Your task to perform on an android device: Open calendar and show me the first week of next month Image 0: 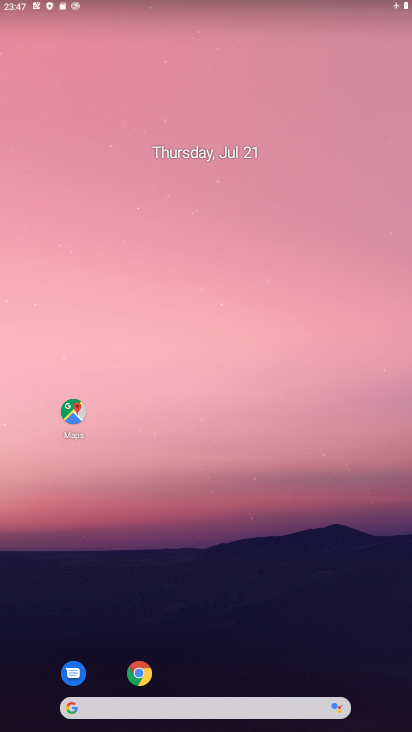
Step 0: drag from (218, 663) to (221, 225)
Your task to perform on an android device: Open calendar and show me the first week of next month Image 1: 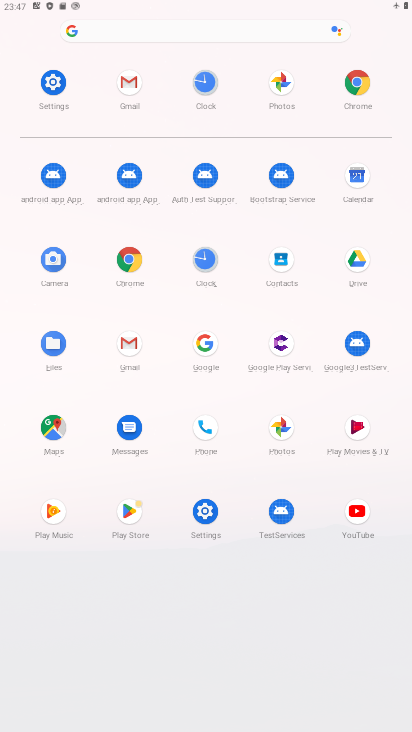
Step 1: click (366, 179)
Your task to perform on an android device: Open calendar and show me the first week of next month Image 2: 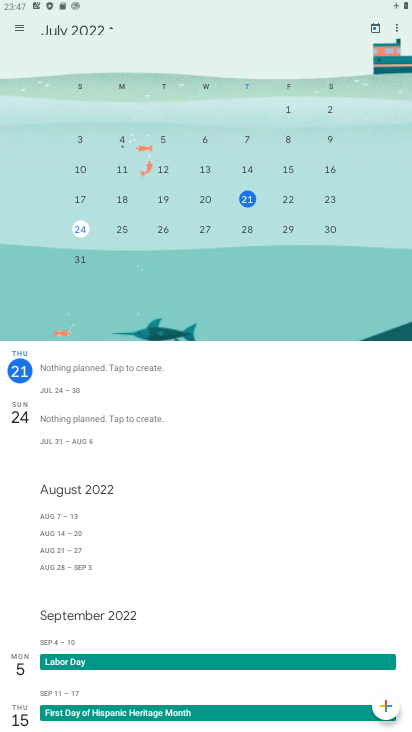
Step 2: click (94, 42)
Your task to perform on an android device: Open calendar and show me the first week of next month Image 3: 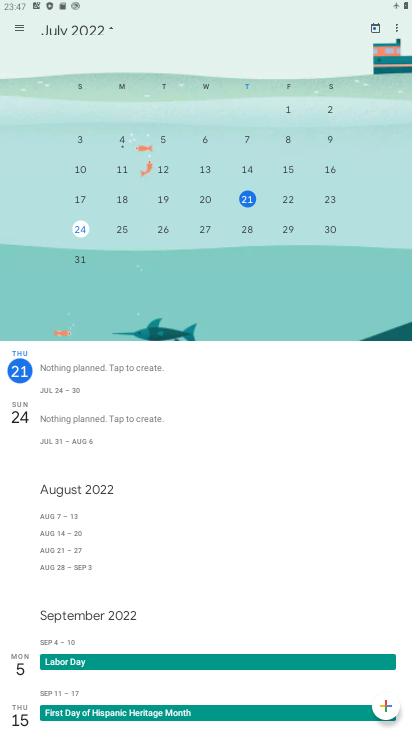
Step 3: task complete